Your task to perform on an android device: change text size in settings app Image 0: 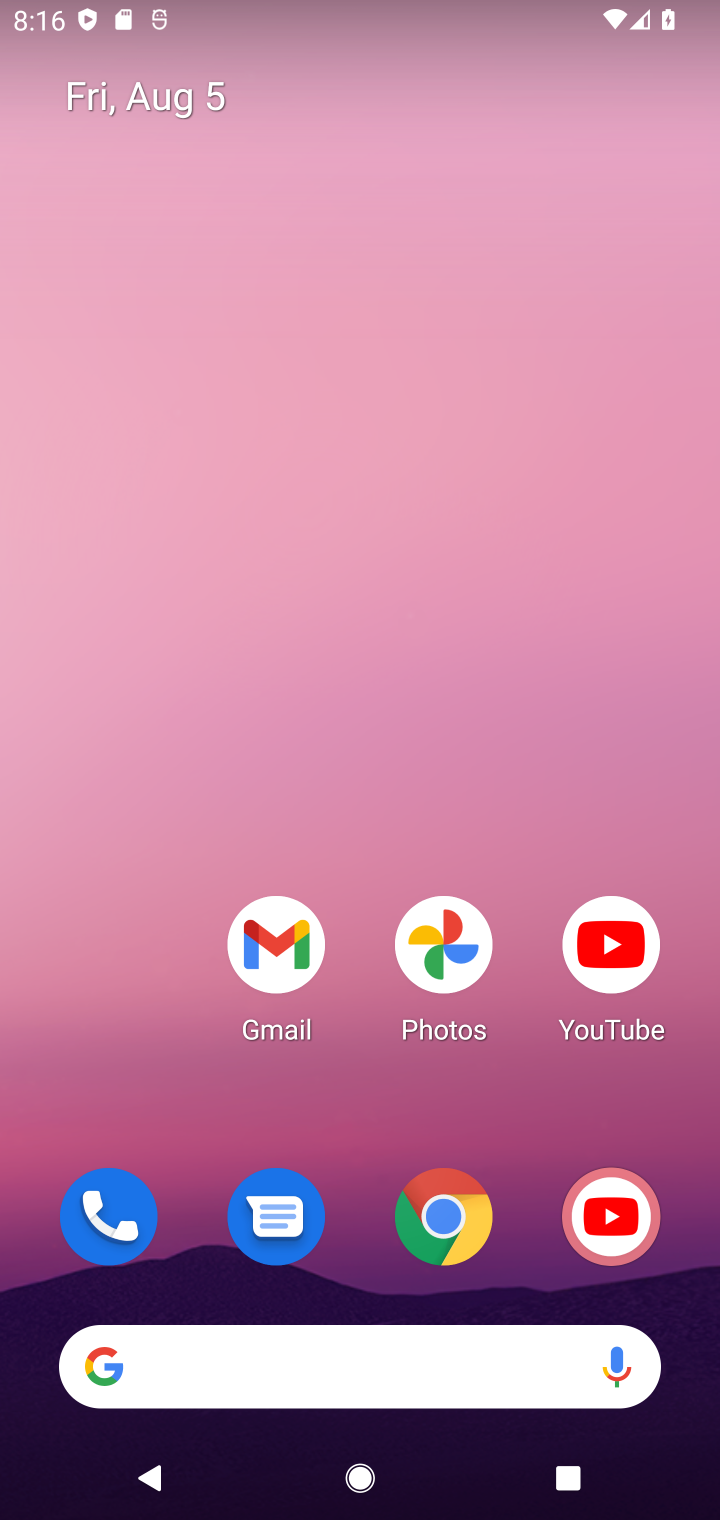
Step 0: drag from (353, 1006) to (383, 153)
Your task to perform on an android device: change text size in settings app Image 1: 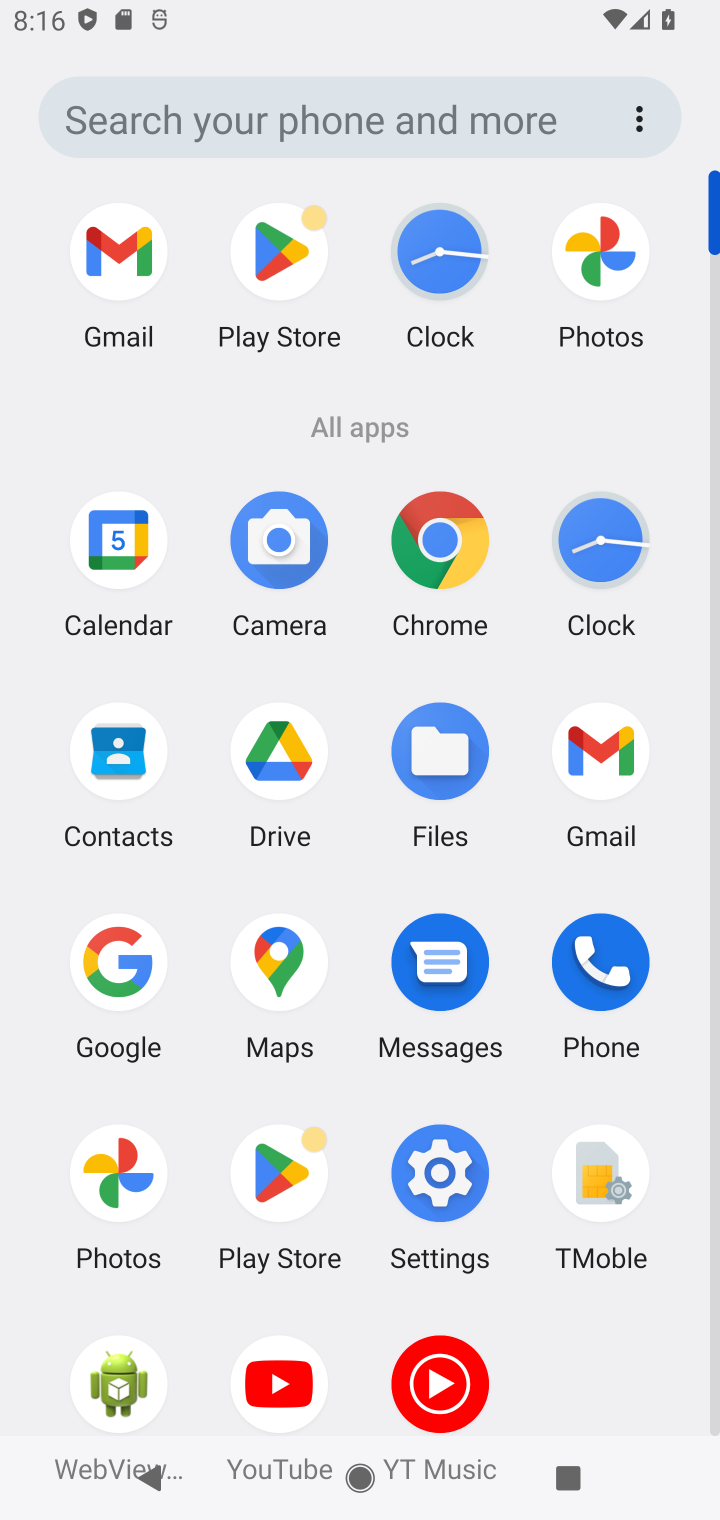
Step 1: click (447, 1181)
Your task to perform on an android device: change text size in settings app Image 2: 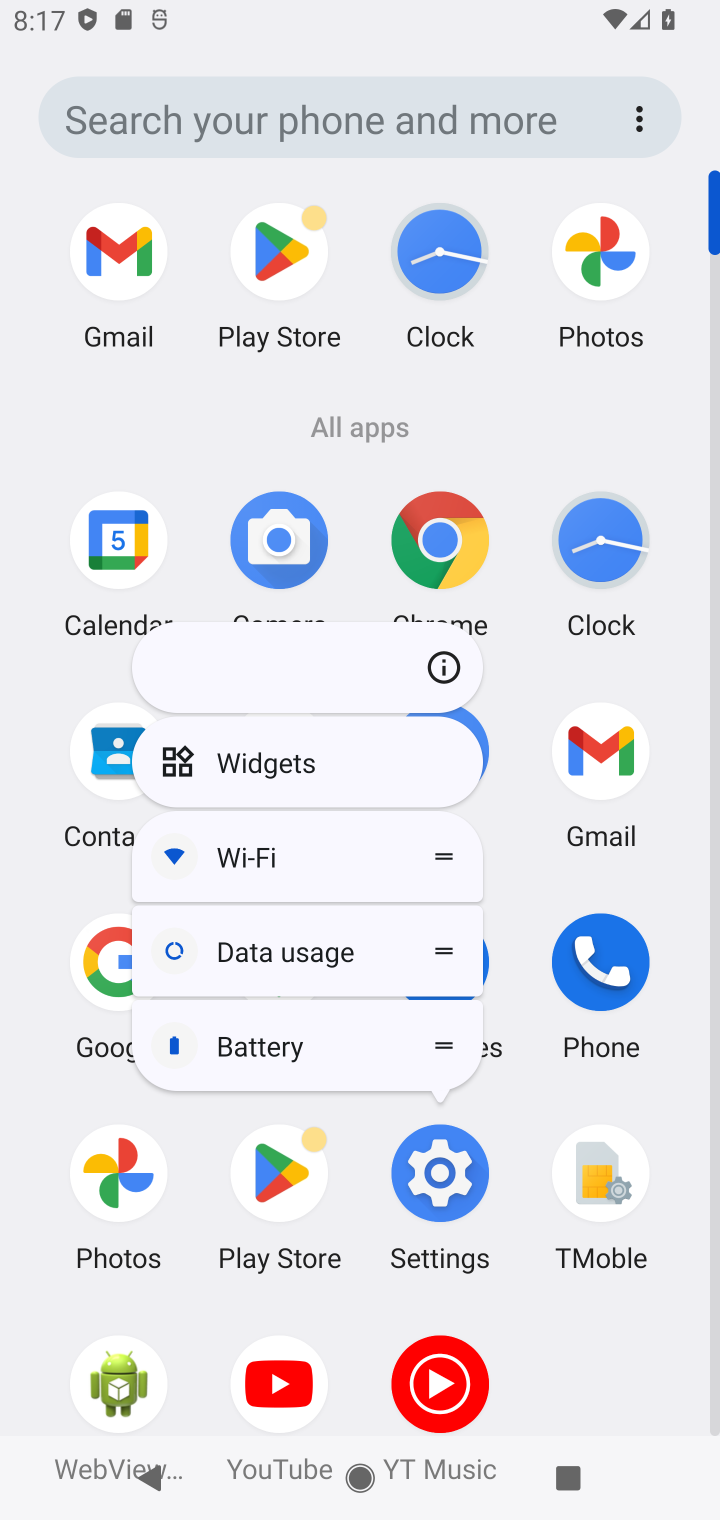
Step 2: click (435, 656)
Your task to perform on an android device: change text size in settings app Image 3: 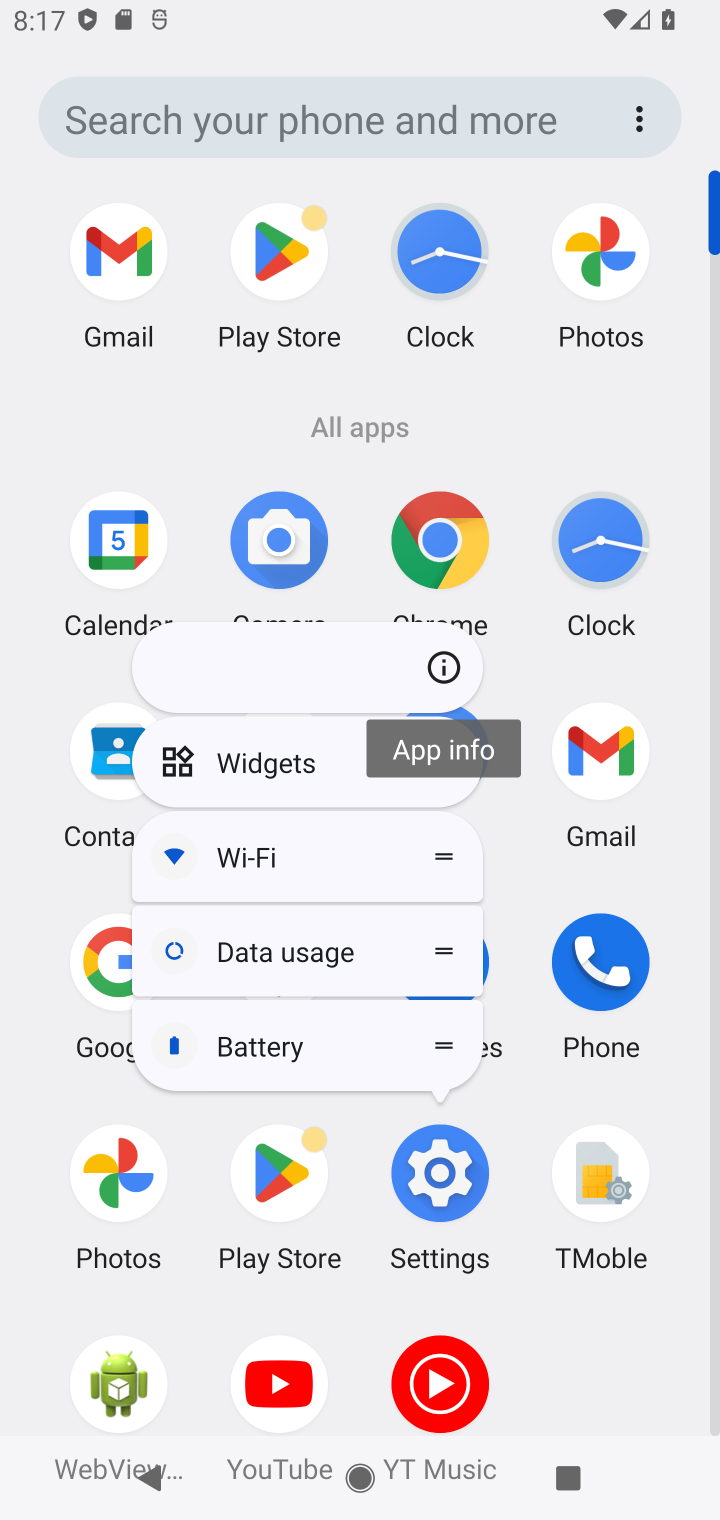
Step 3: click (447, 682)
Your task to perform on an android device: change text size in settings app Image 4: 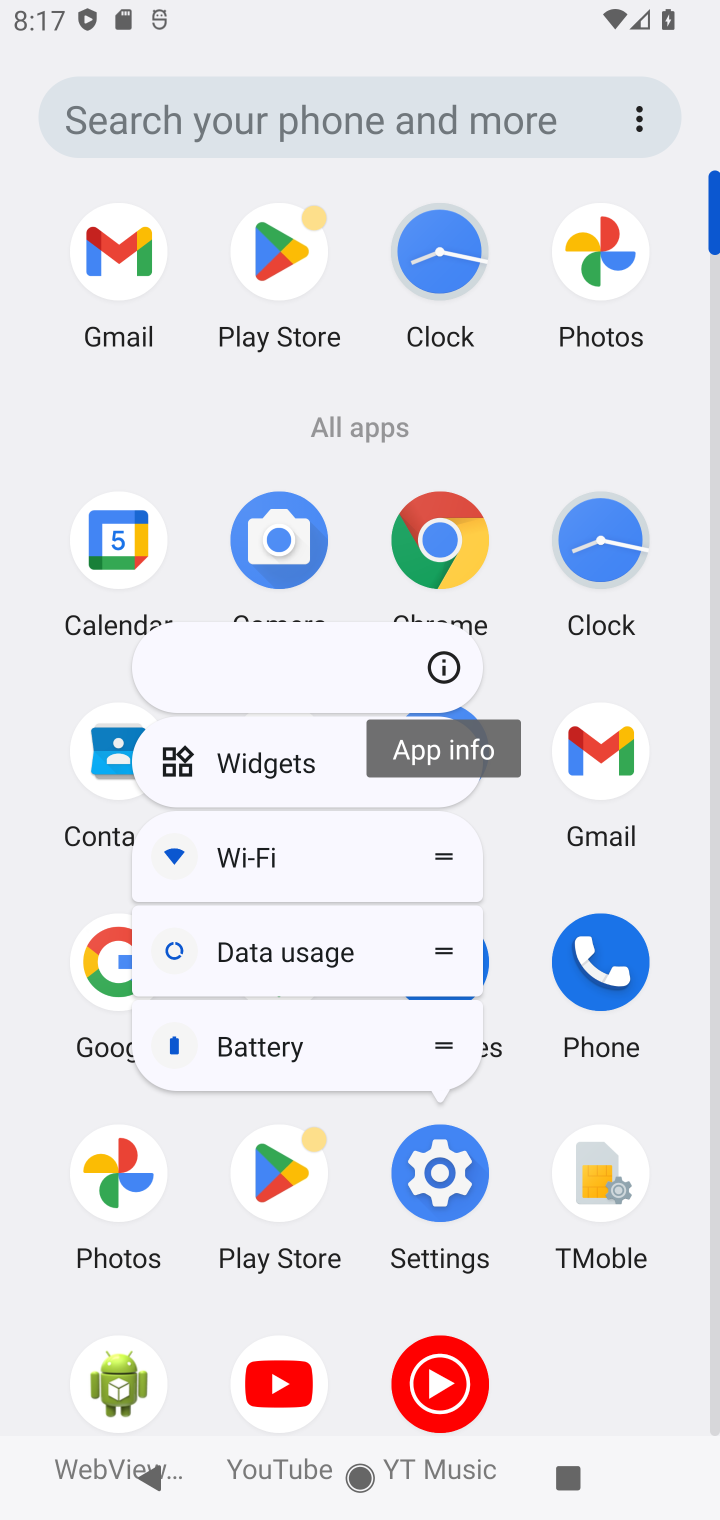
Step 4: click (436, 1174)
Your task to perform on an android device: change text size in settings app Image 5: 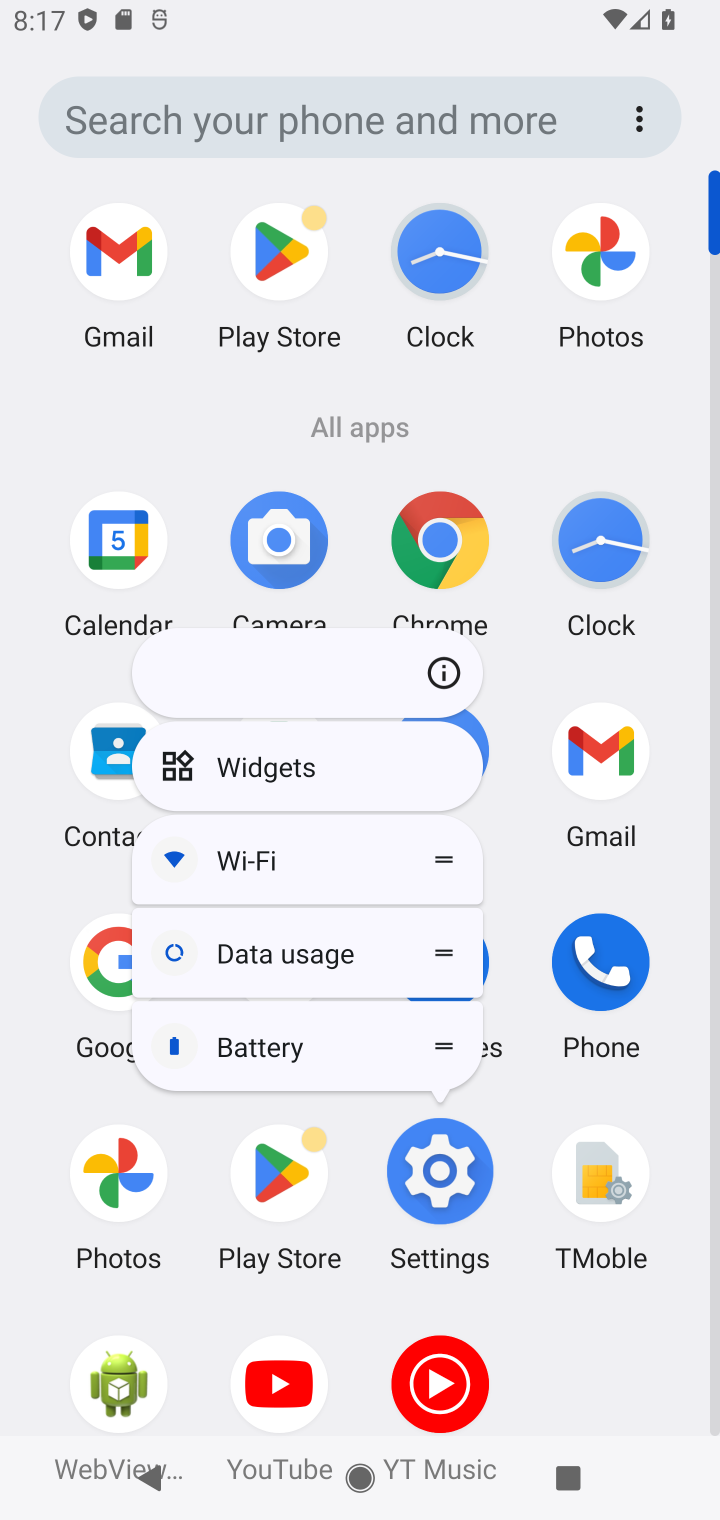
Step 5: click (436, 1172)
Your task to perform on an android device: change text size in settings app Image 6: 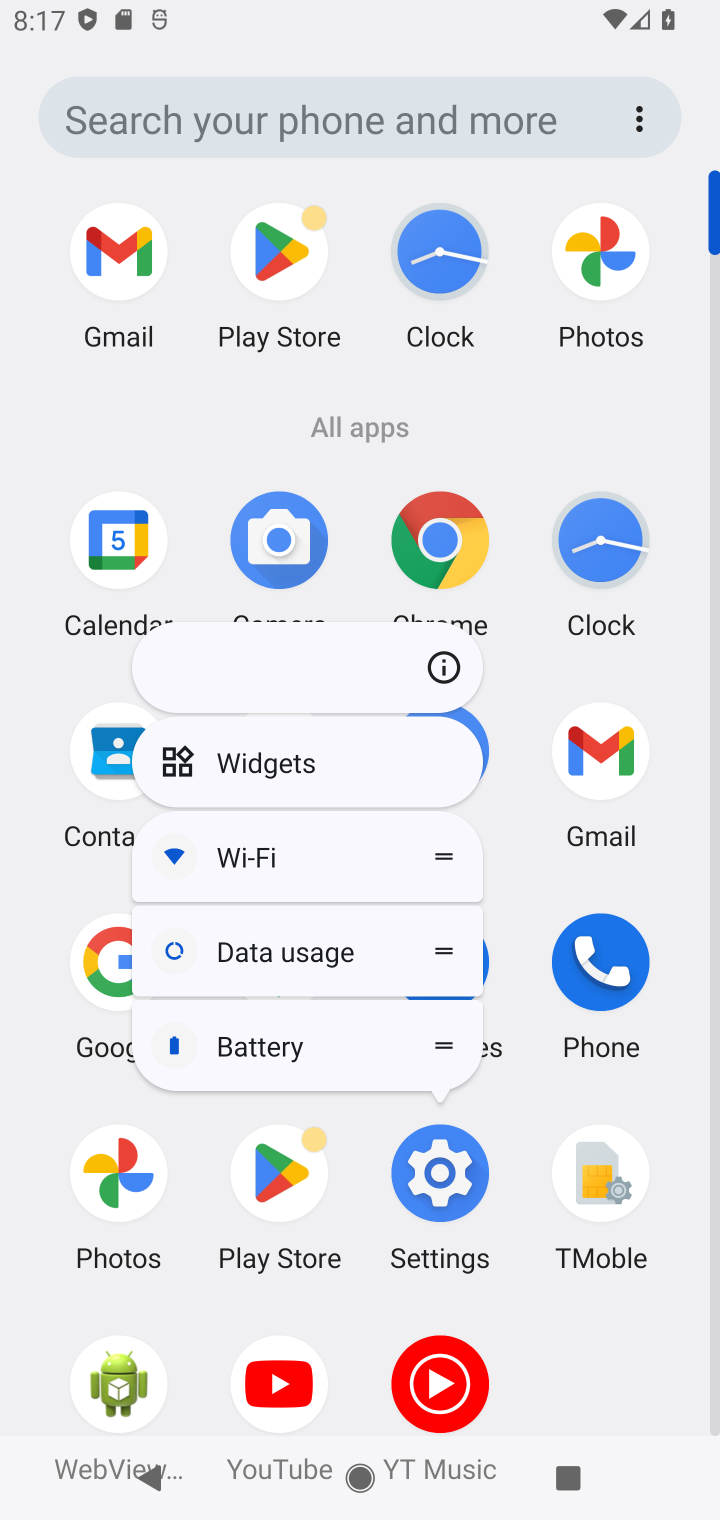
Step 6: click (454, 658)
Your task to perform on an android device: change text size in settings app Image 7: 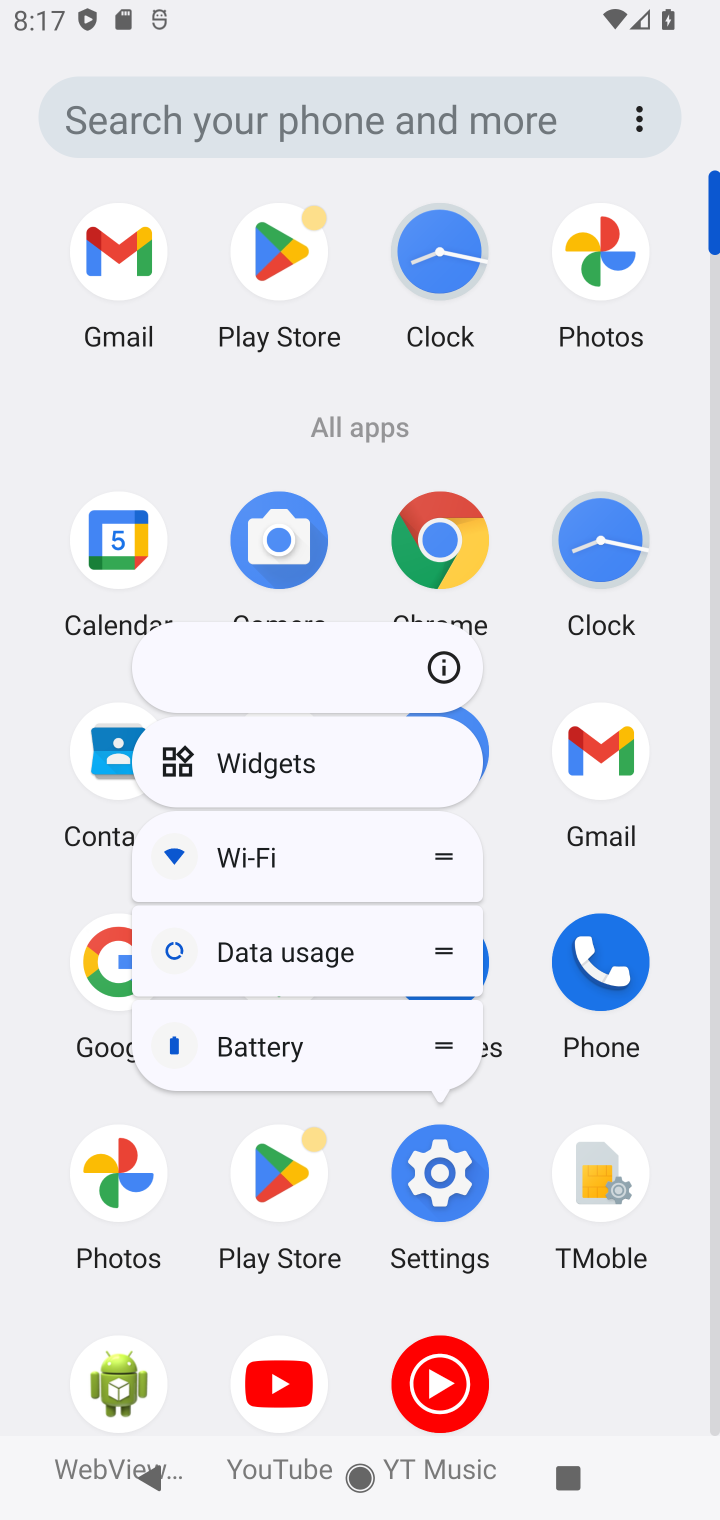
Step 7: click (453, 687)
Your task to perform on an android device: change text size in settings app Image 8: 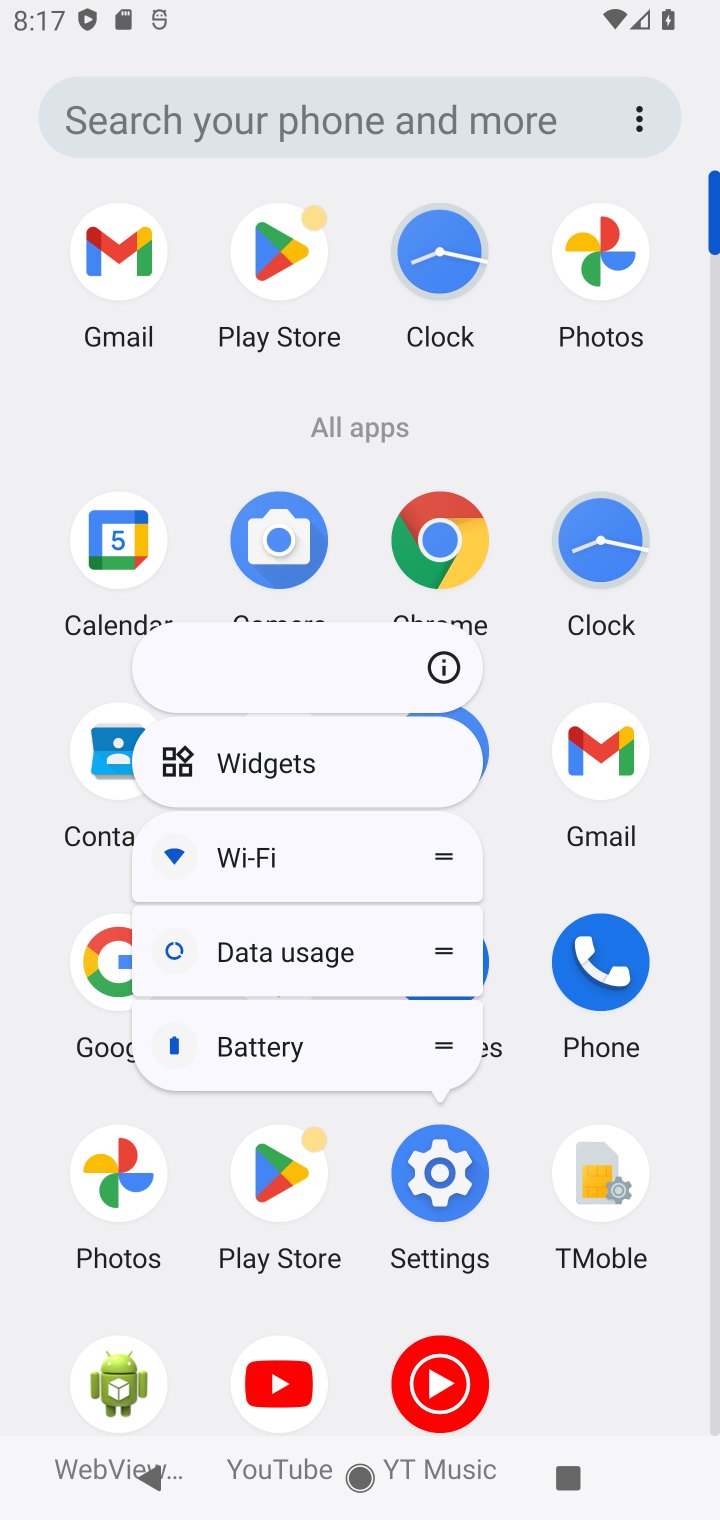
Step 8: click (426, 1190)
Your task to perform on an android device: change text size in settings app Image 9: 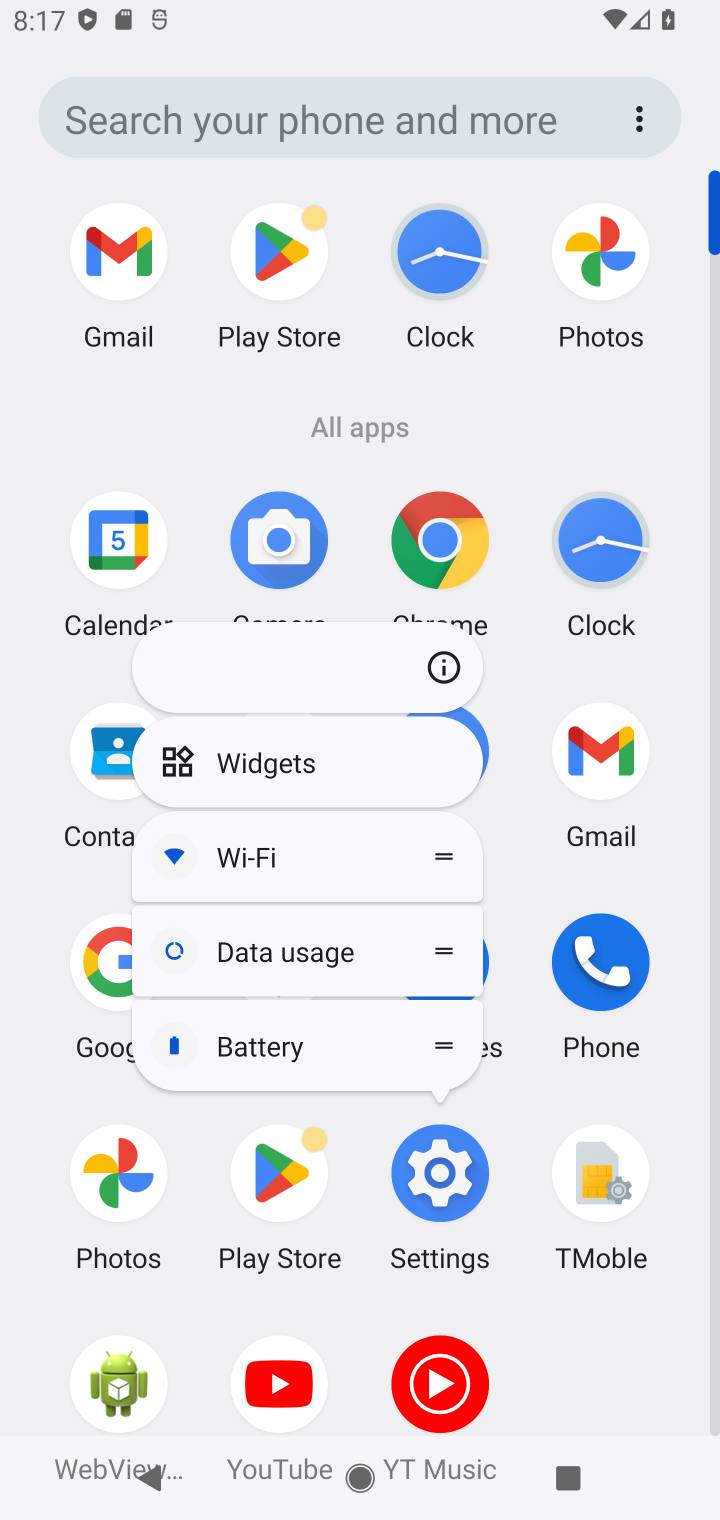
Step 9: click (422, 1188)
Your task to perform on an android device: change text size in settings app Image 10: 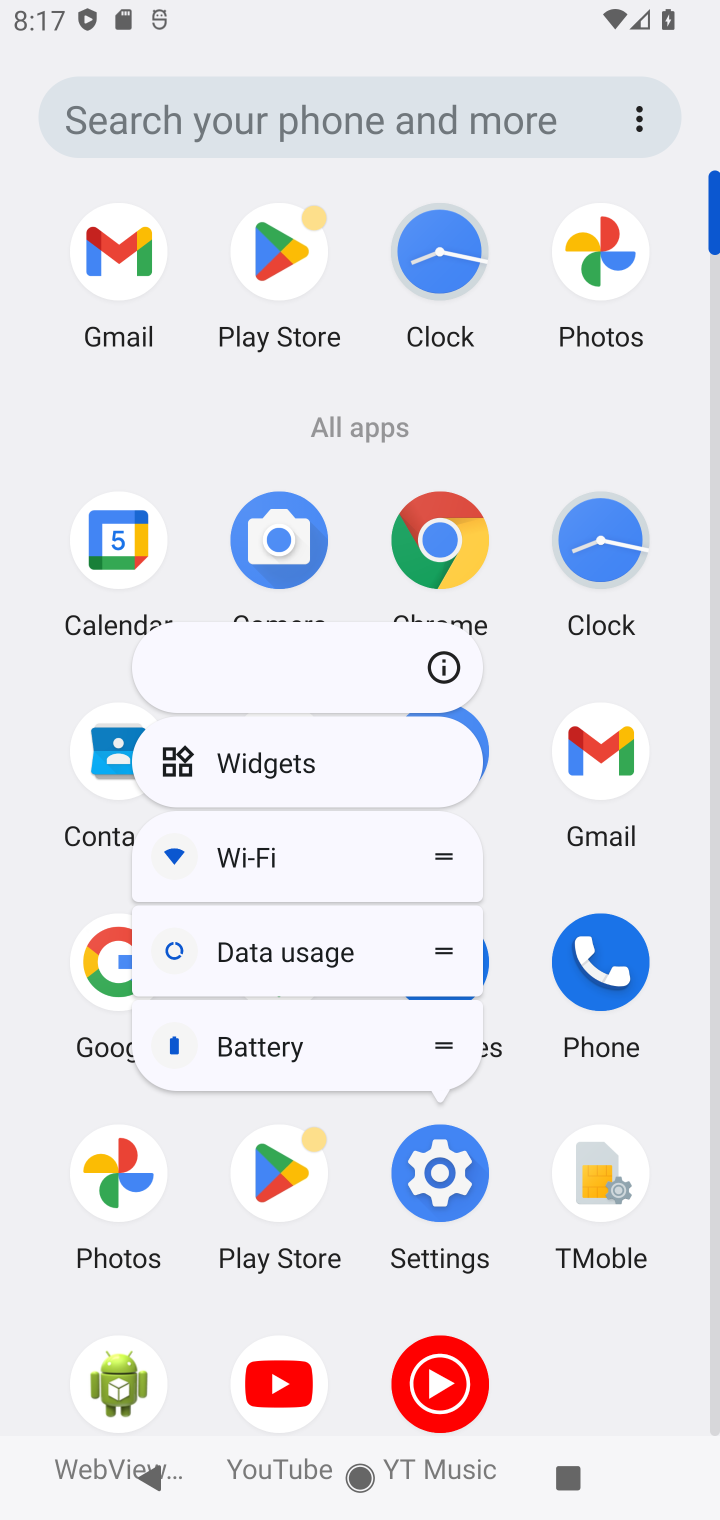
Step 10: click (439, 664)
Your task to perform on an android device: change text size in settings app Image 11: 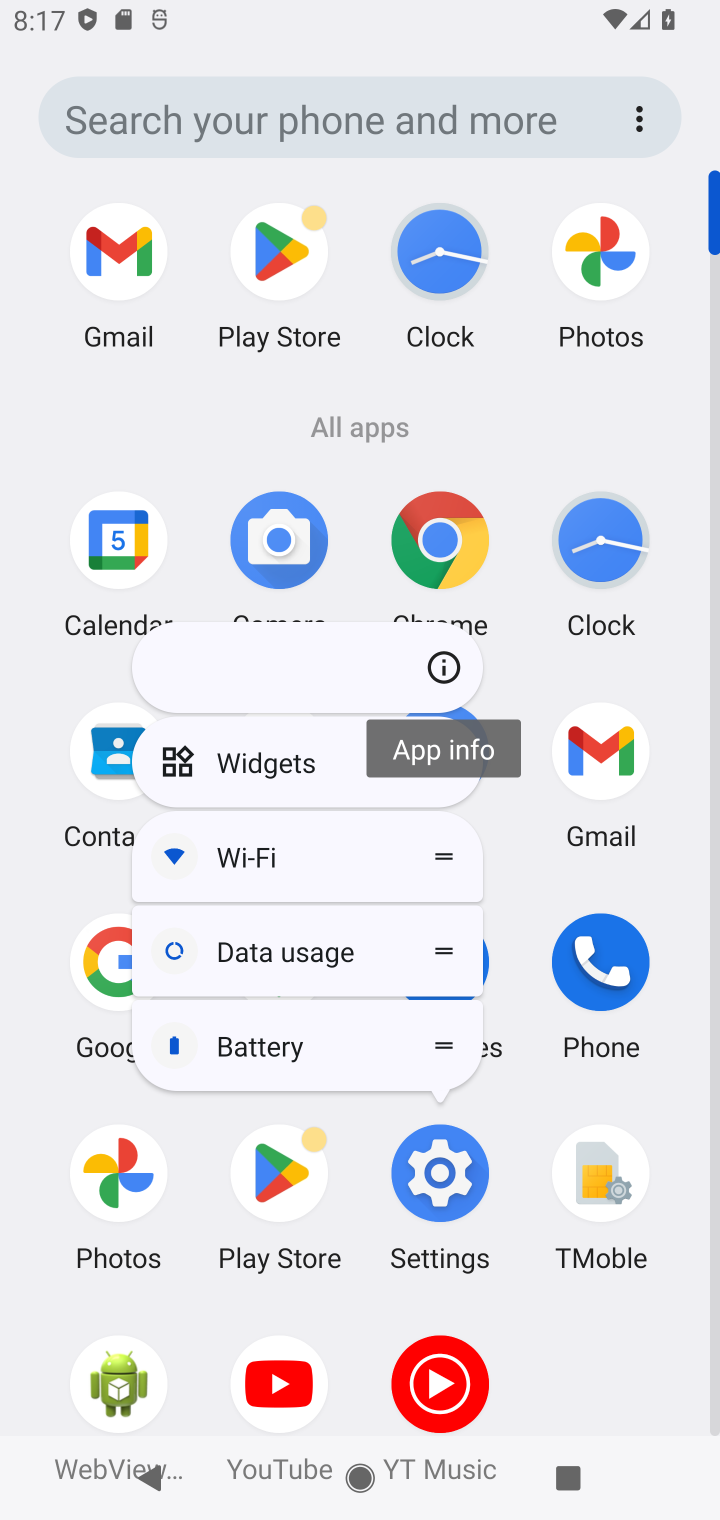
Step 11: click (437, 662)
Your task to perform on an android device: change text size in settings app Image 12: 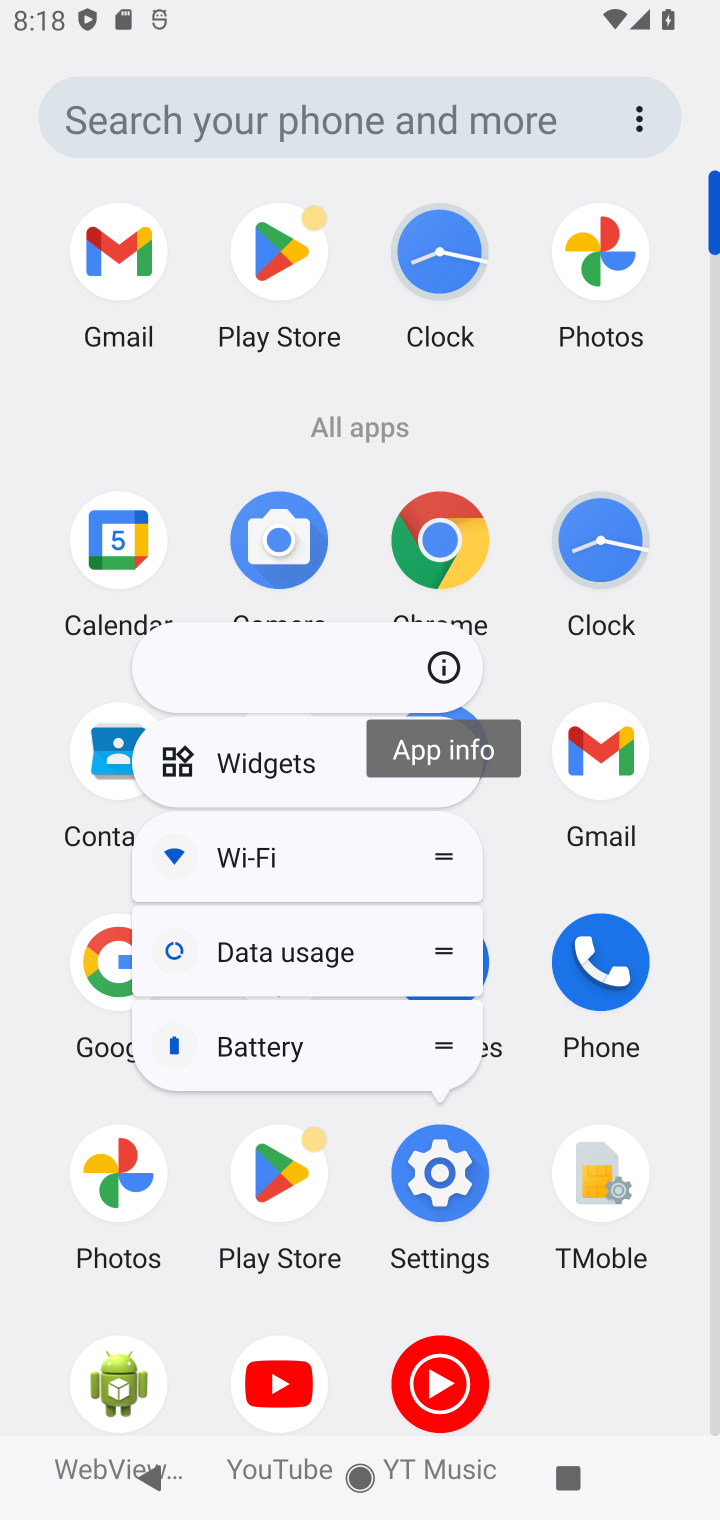
Step 12: click (436, 1180)
Your task to perform on an android device: change text size in settings app Image 13: 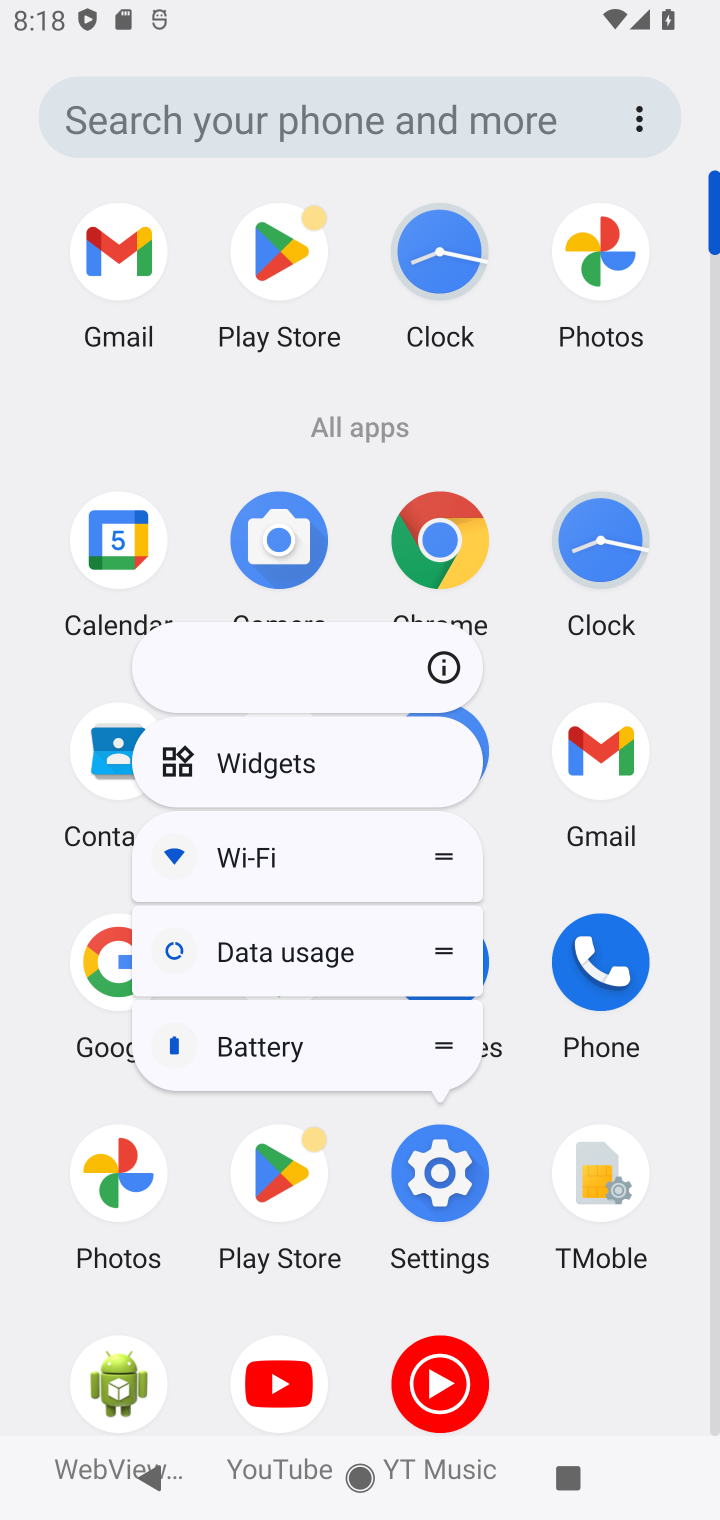
Step 13: click (436, 677)
Your task to perform on an android device: change text size in settings app Image 14: 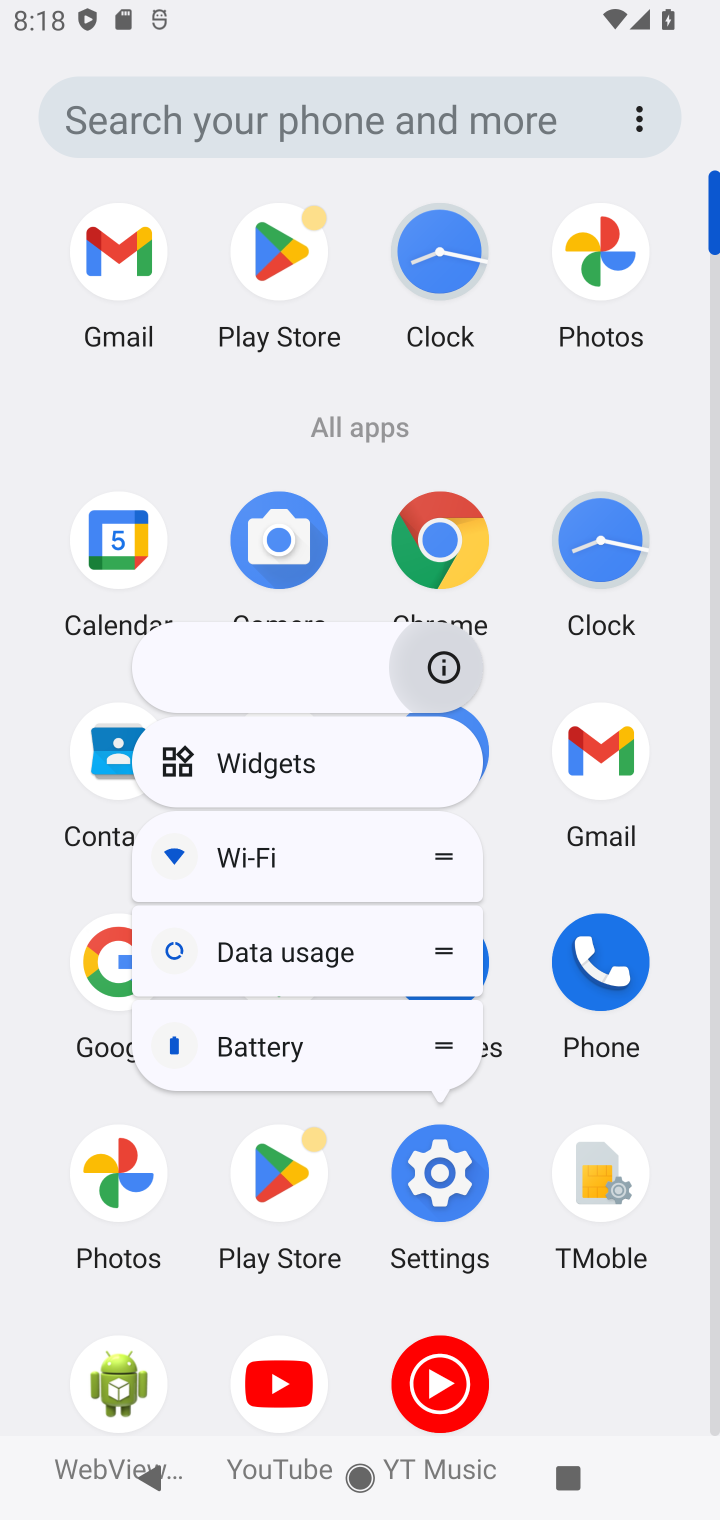
Step 14: click (428, 671)
Your task to perform on an android device: change text size in settings app Image 15: 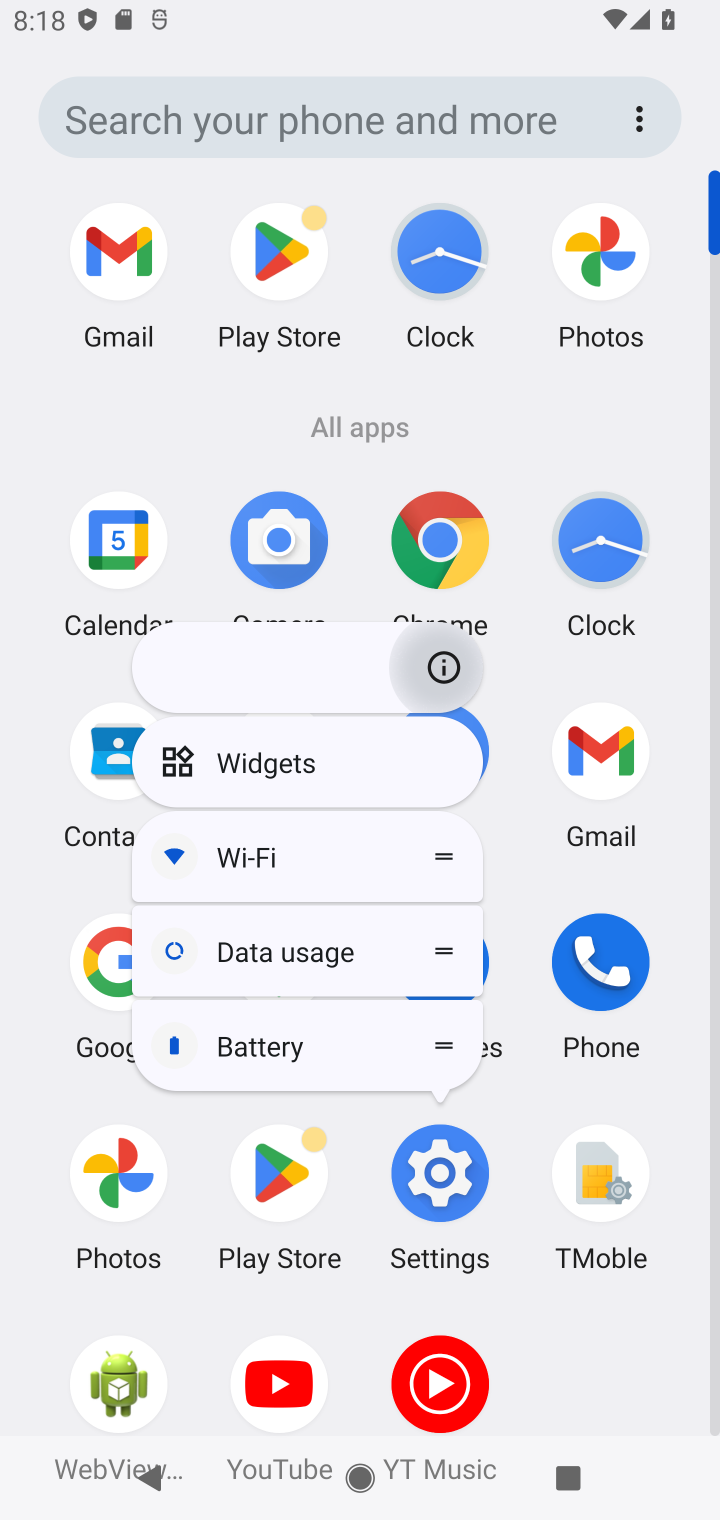
Step 15: click (428, 671)
Your task to perform on an android device: change text size in settings app Image 16: 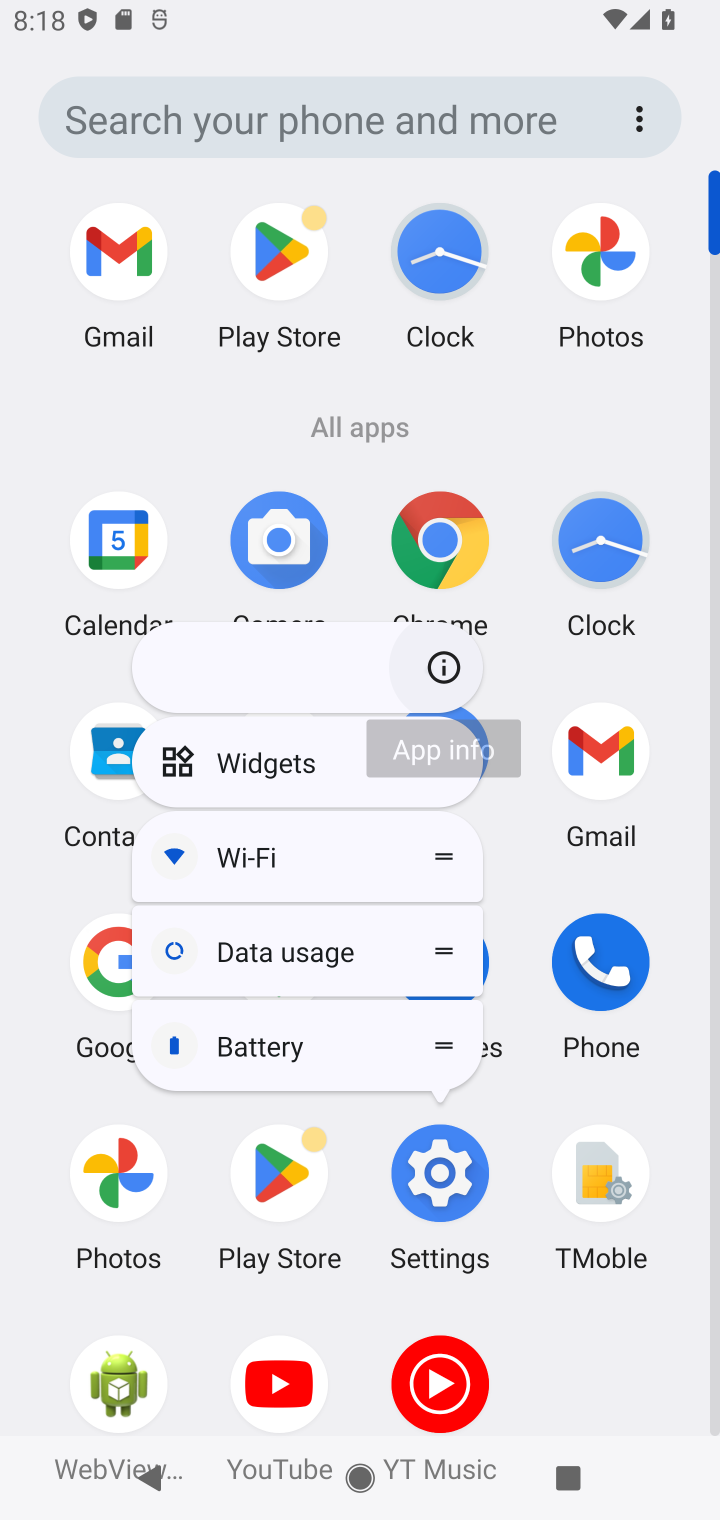
Step 16: click (428, 671)
Your task to perform on an android device: change text size in settings app Image 17: 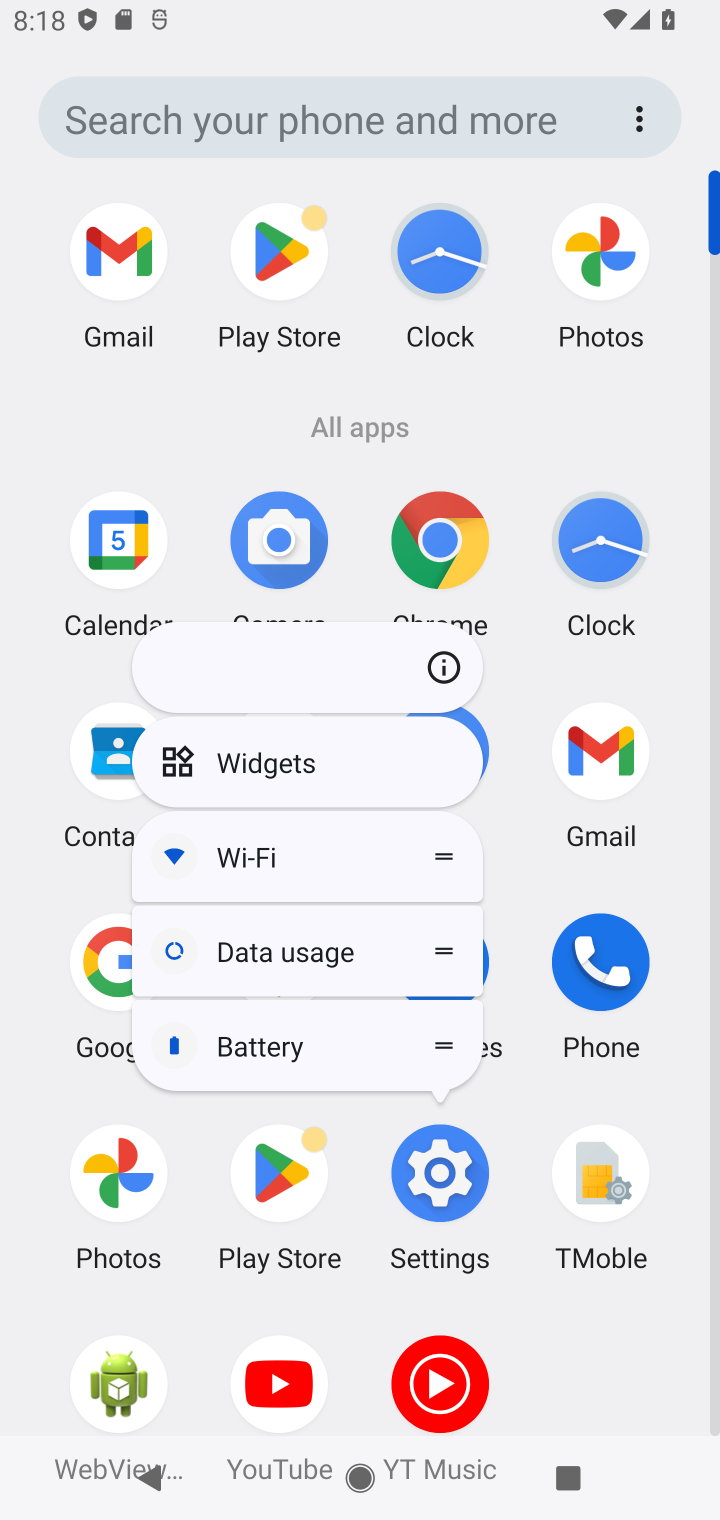
Step 17: click (430, 1178)
Your task to perform on an android device: change text size in settings app Image 18: 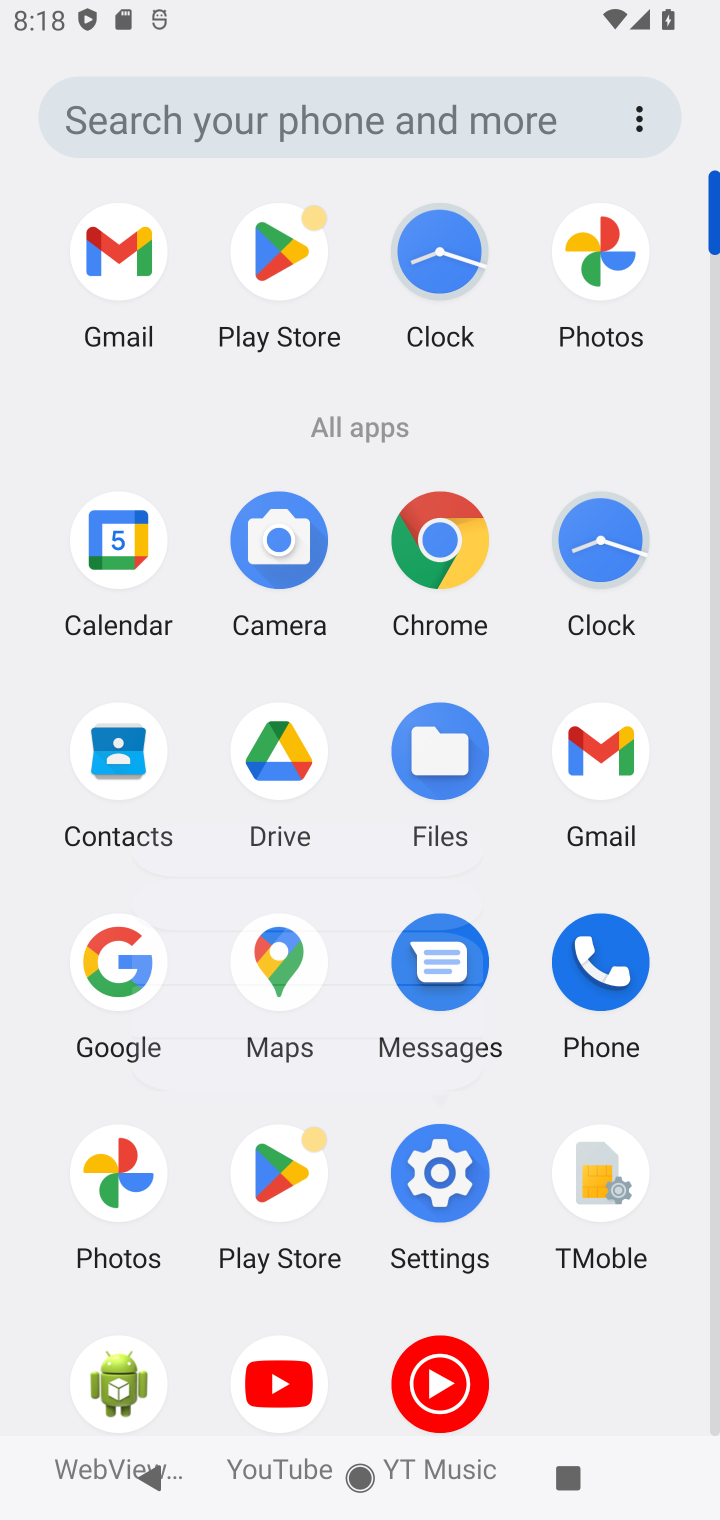
Step 18: click (448, 1158)
Your task to perform on an android device: change text size in settings app Image 19: 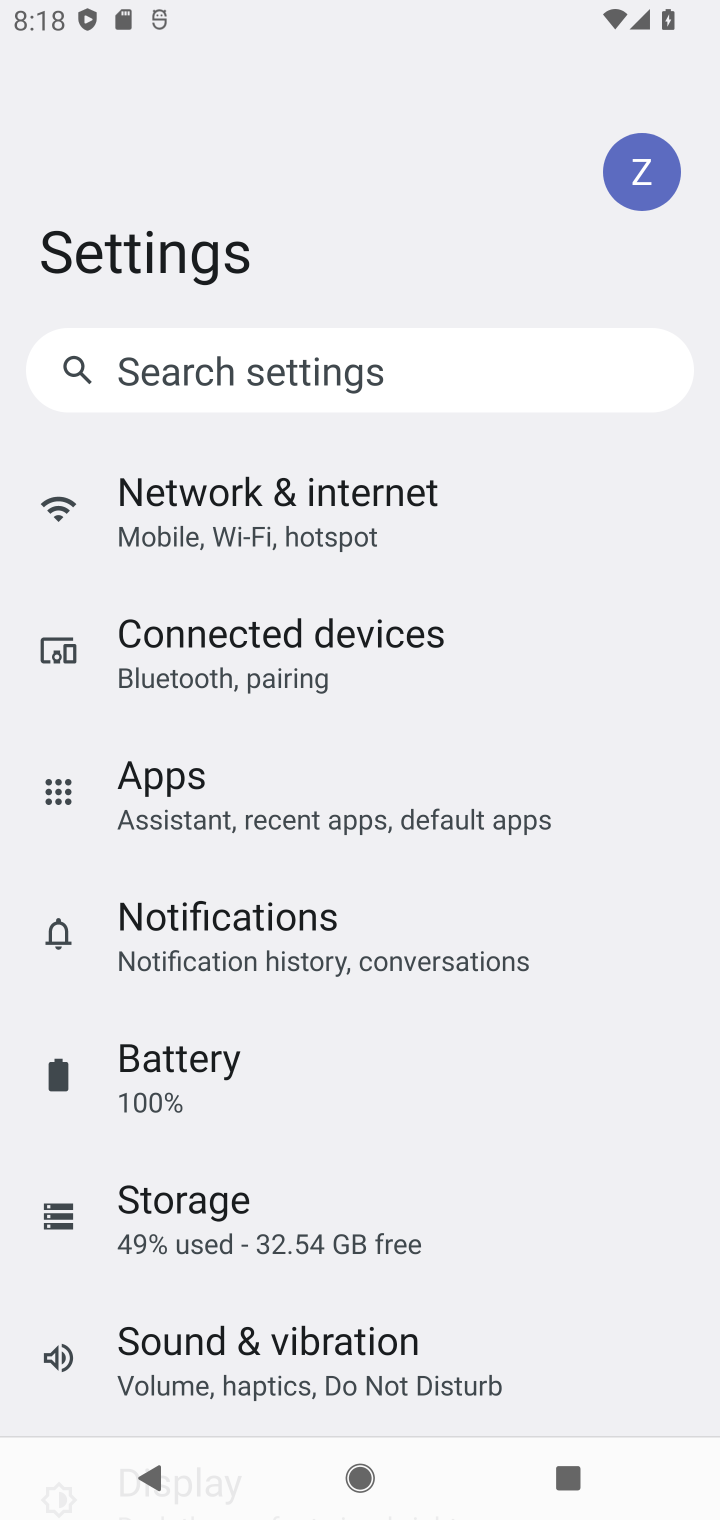
Step 19: click (425, 1157)
Your task to perform on an android device: change text size in settings app Image 20: 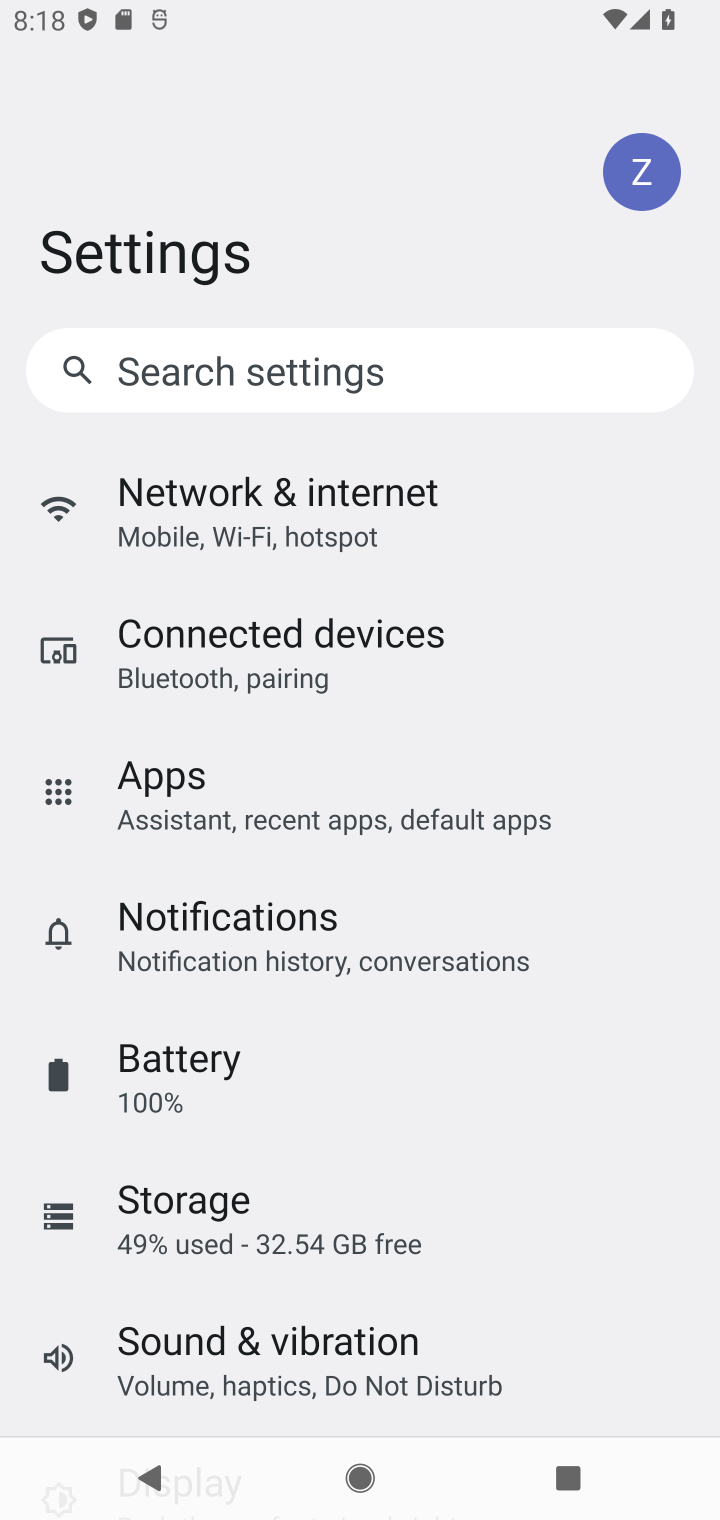
Step 20: drag from (418, 1138) to (601, 277)
Your task to perform on an android device: change text size in settings app Image 21: 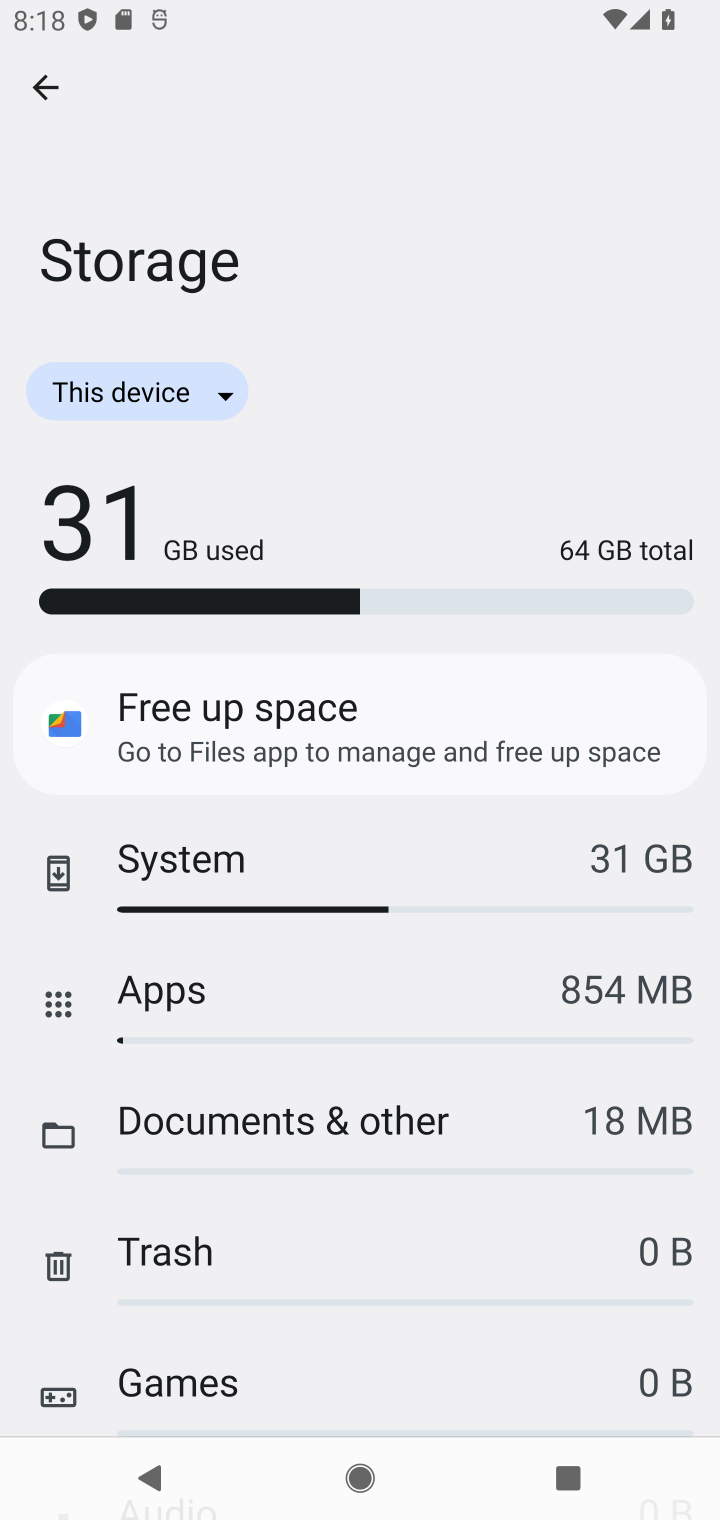
Step 21: click (52, 93)
Your task to perform on an android device: change text size in settings app Image 22: 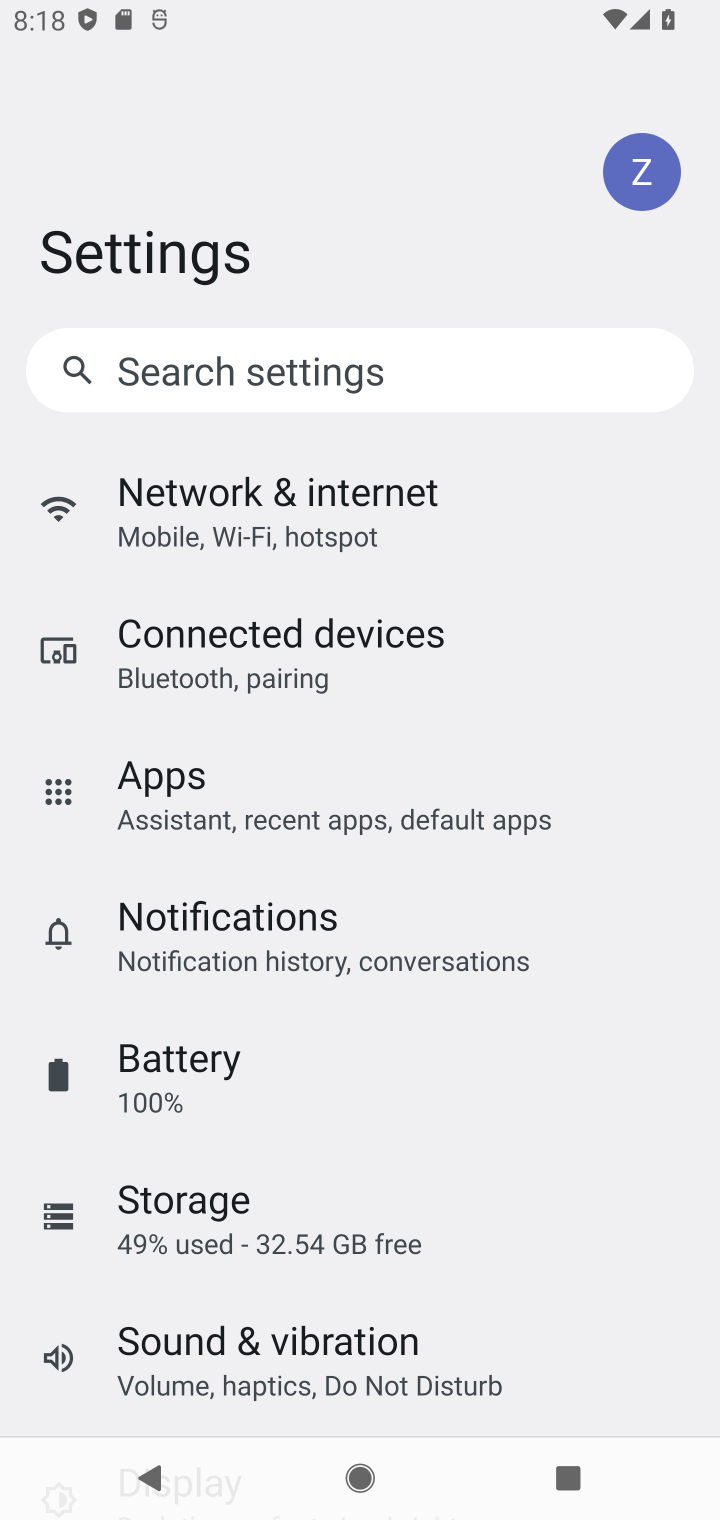
Step 22: drag from (421, 964) to (489, 306)
Your task to perform on an android device: change text size in settings app Image 23: 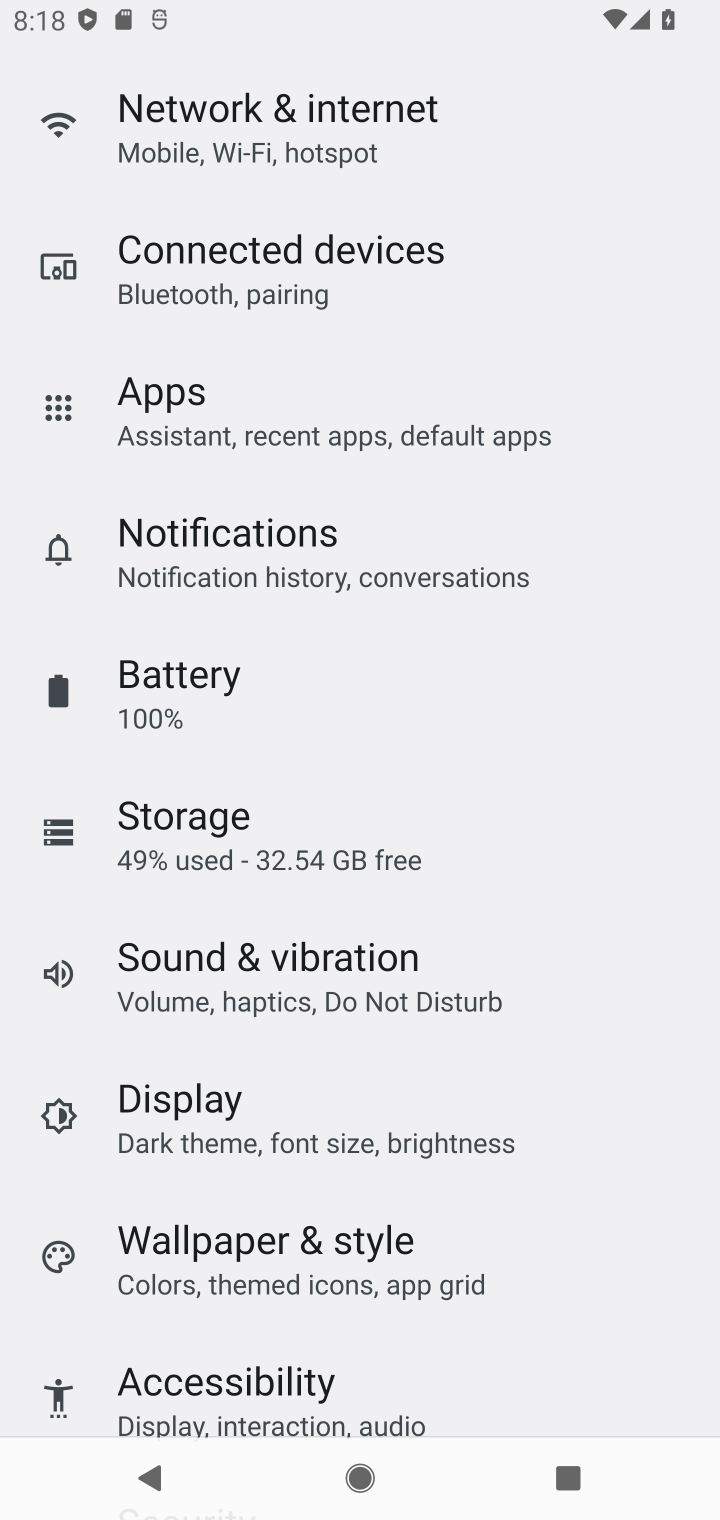
Step 23: click (238, 1097)
Your task to perform on an android device: change text size in settings app Image 24: 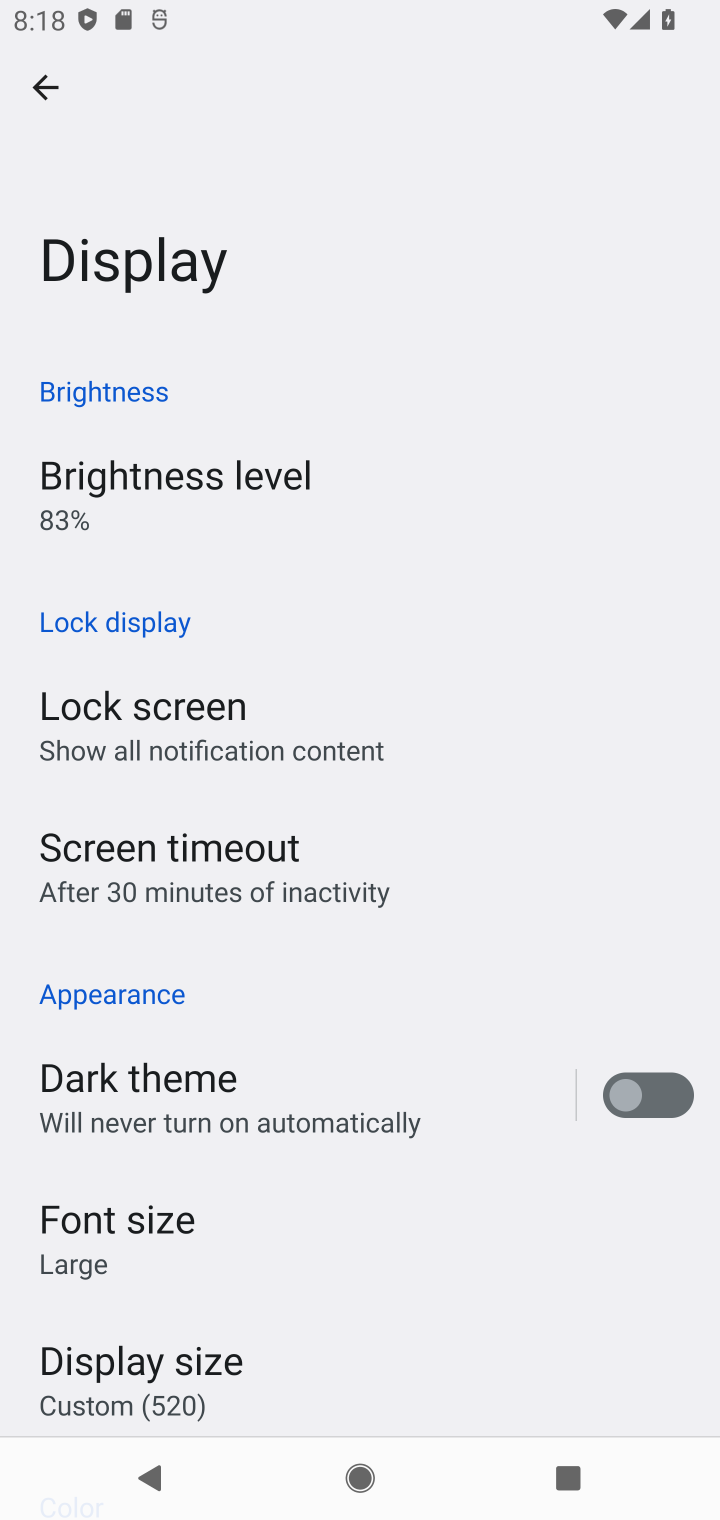
Step 24: drag from (306, 1232) to (401, 514)
Your task to perform on an android device: change text size in settings app Image 25: 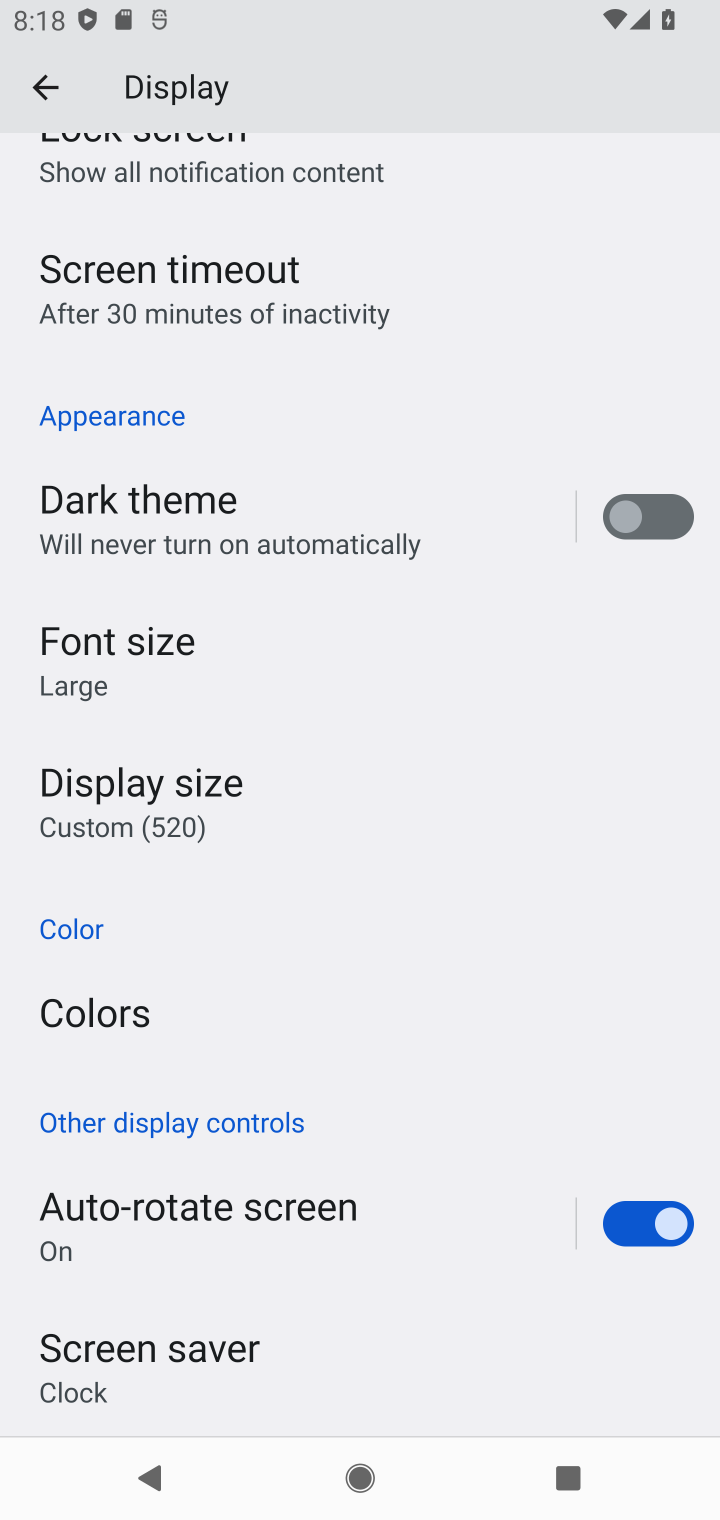
Step 25: click (163, 672)
Your task to perform on an android device: change text size in settings app Image 26: 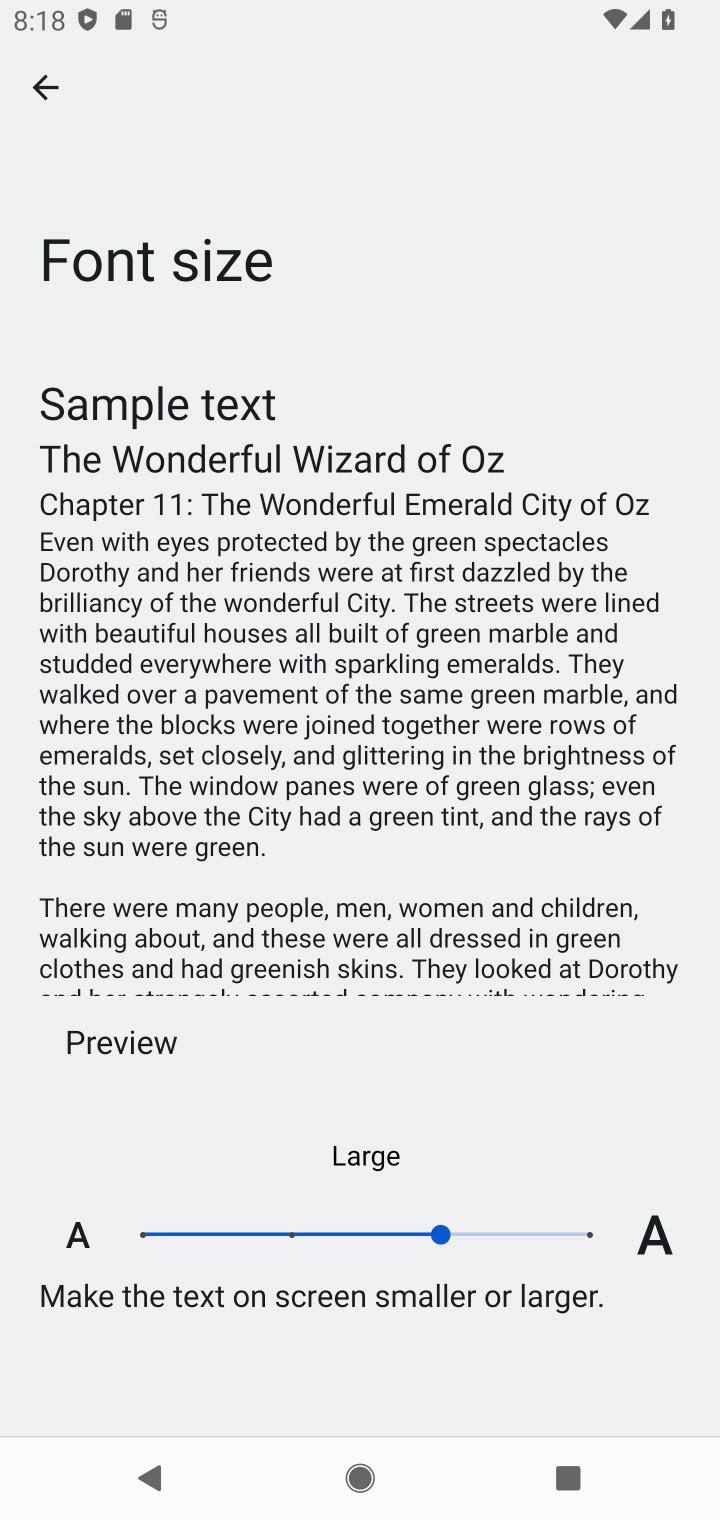
Step 26: click (316, 1221)
Your task to perform on an android device: change text size in settings app Image 27: 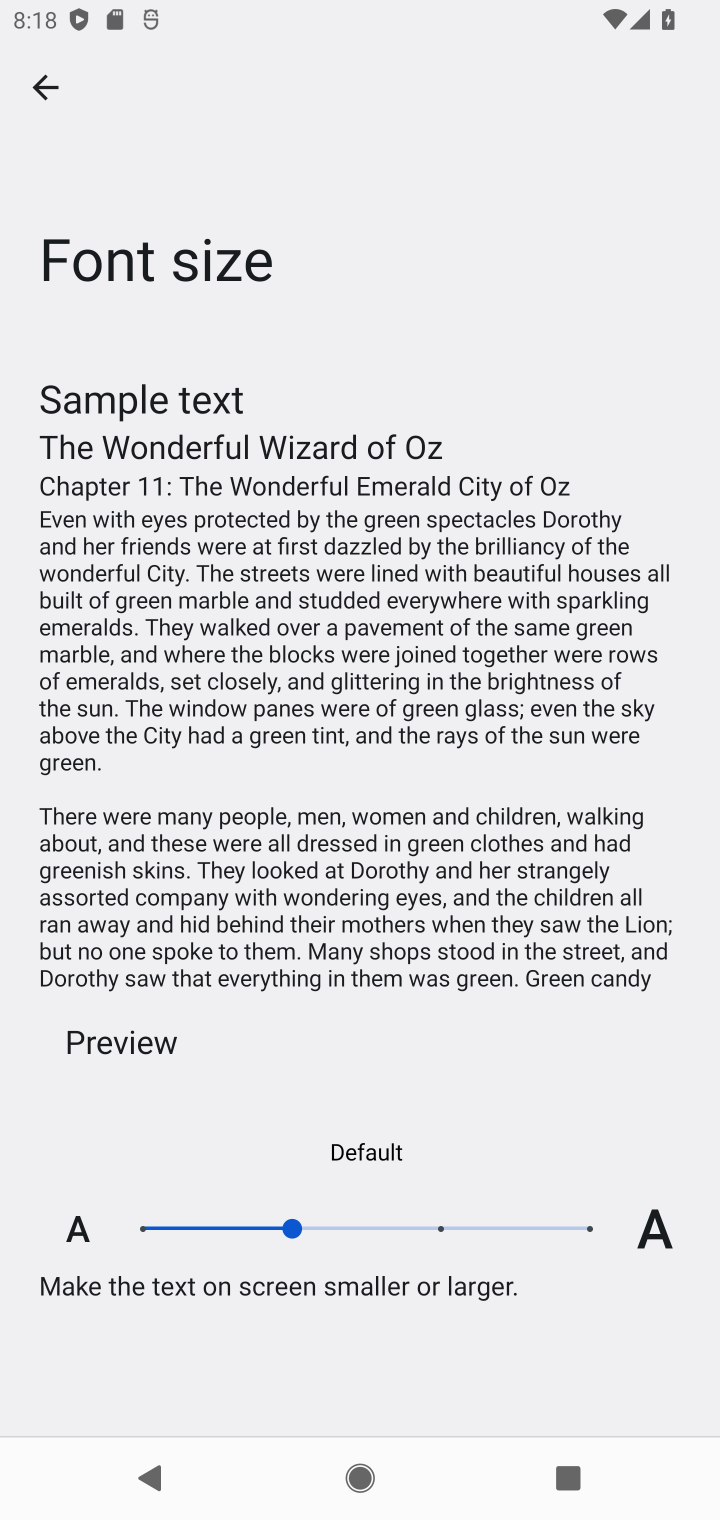
Step 27: task complete